Your task to perform on an android device: Turn on the flashlight Image 0: 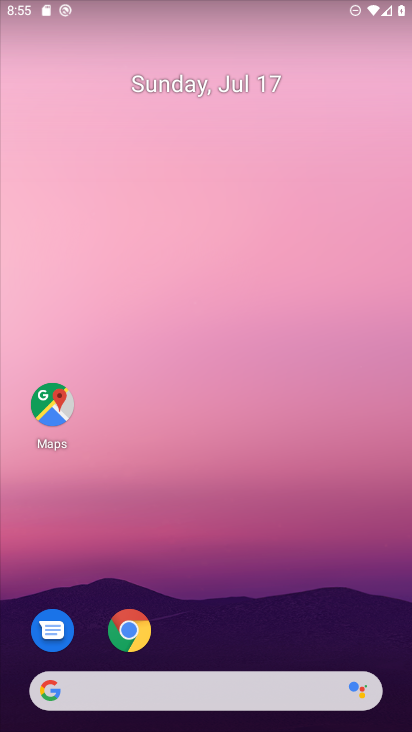
Step 0: drag from (384, 627) to (255, 47)
Your task to perform on an android device: Turn on the flashlight Image 1: 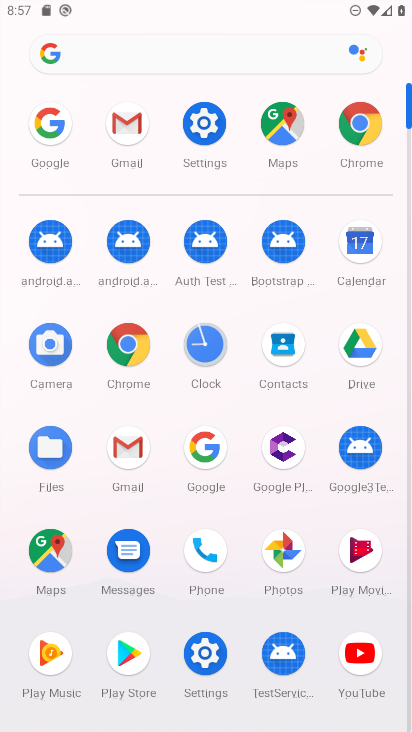
Step 1: click (203, 664)
Your task to perform on an android device: Turn on the flashlight Image 2: 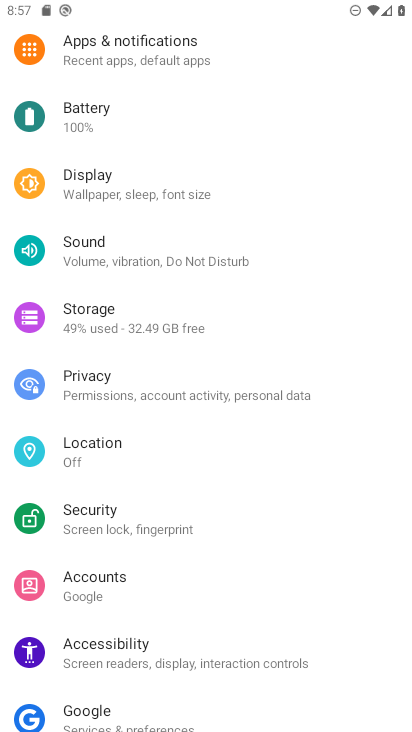
Step 2: task complete